Your task to perform on an android device: Go to network settings Image 0: 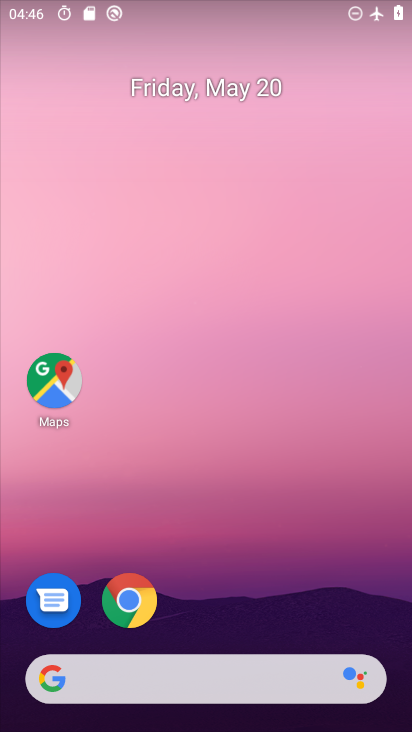
Step 0: drag from (279, 592) to (321, 47)
Your task to perform on an android device: Go to network settings Image 1: 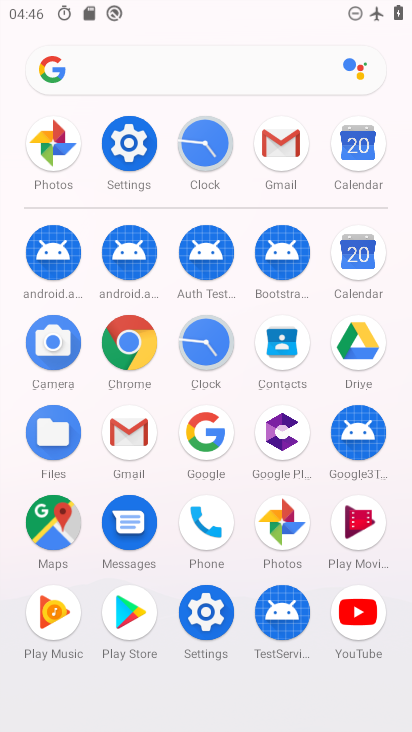
Step 1: click (132, 141)
Your task to perform on an android device: Go to network settings Image 2: 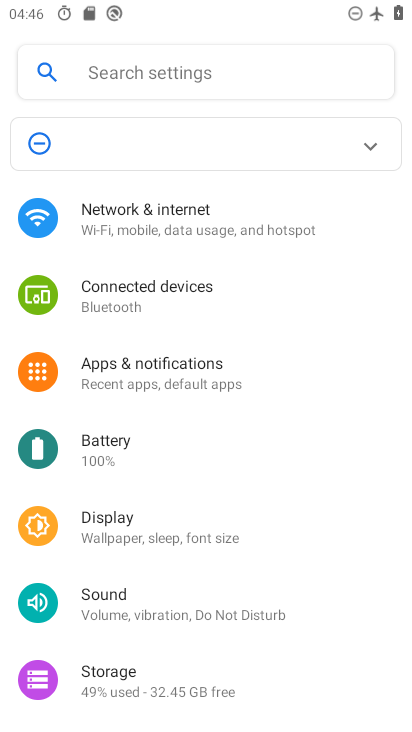
Step 2: click (125, 217)
Your task to perform on an android device: Go to network settings Image 3: 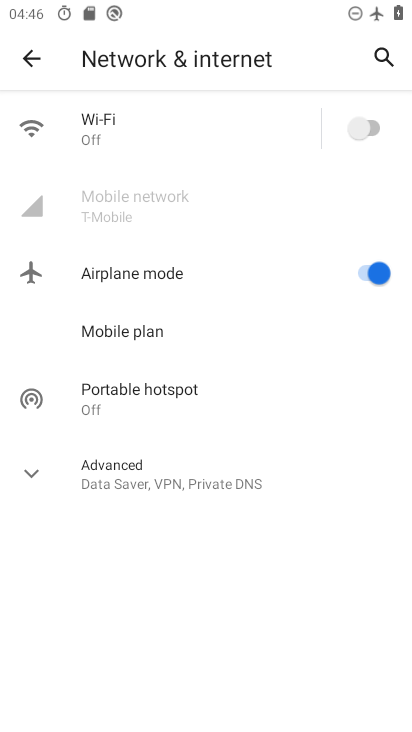
Step 3: task complete